Your task to perform on an android device: add a contact Image 0: 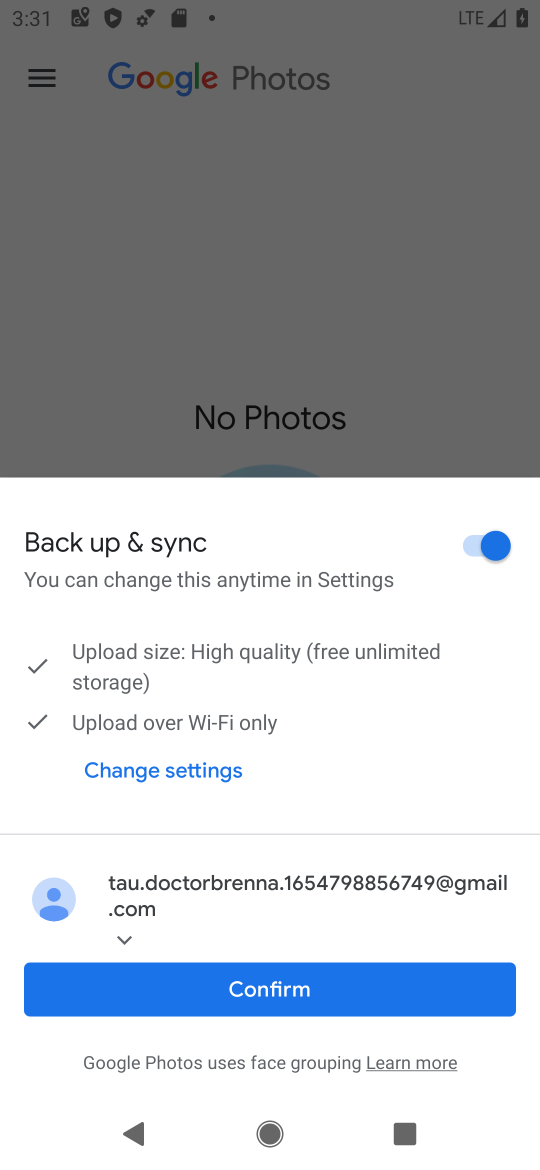
Step 0: press home button
Your task to perform on an android device: add a contact Image 1: 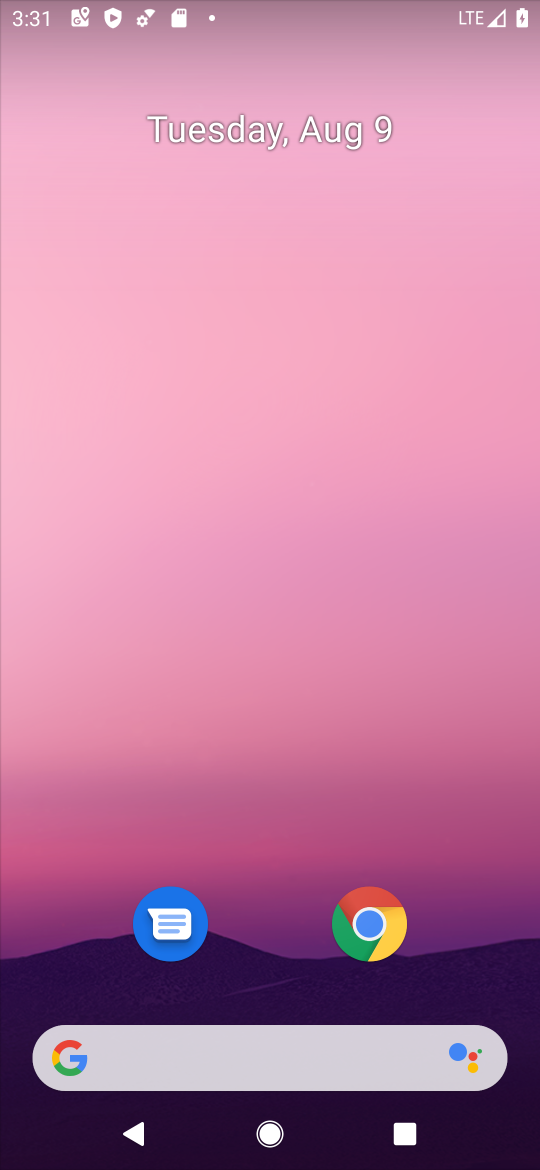
Step 1: drag from (240, 700) to (323, 207)
Your task to perform on an android device: add a contact Image 2: 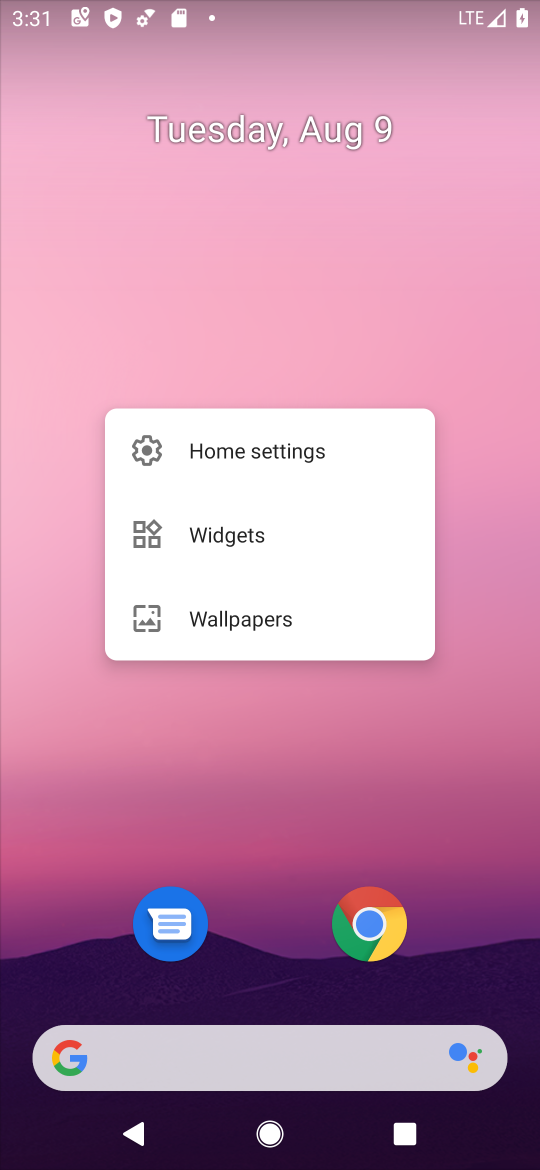
Step 2: drag from (183, 1062) to (335, 109)
Your task to perform on an android device: add a contact Image 3: 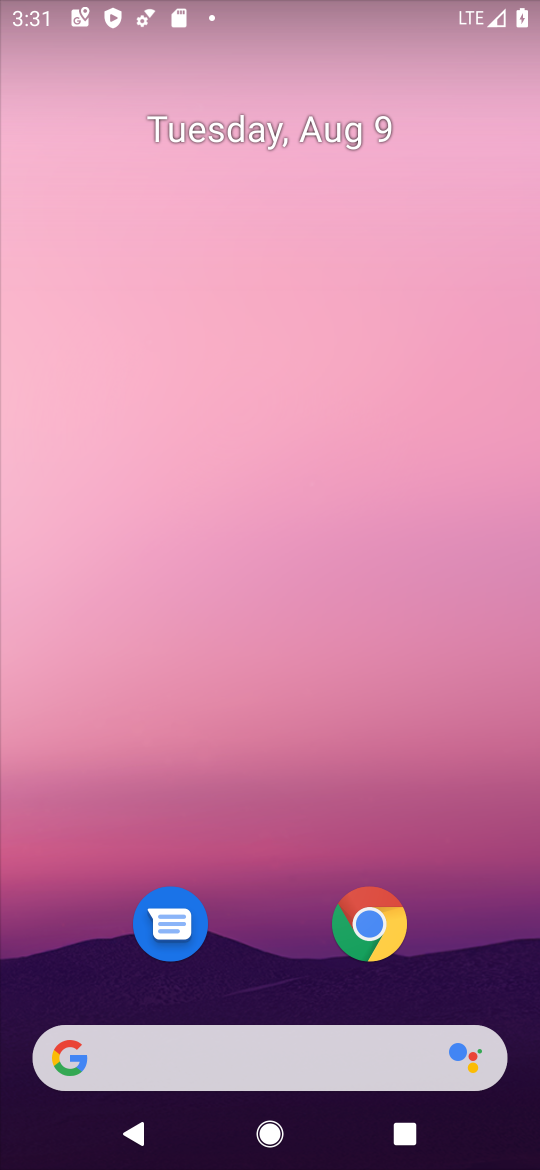
Step 3: drag from (229, 1017) to (349, 299)
Your task to perform on an android device: add a contact Image 4: 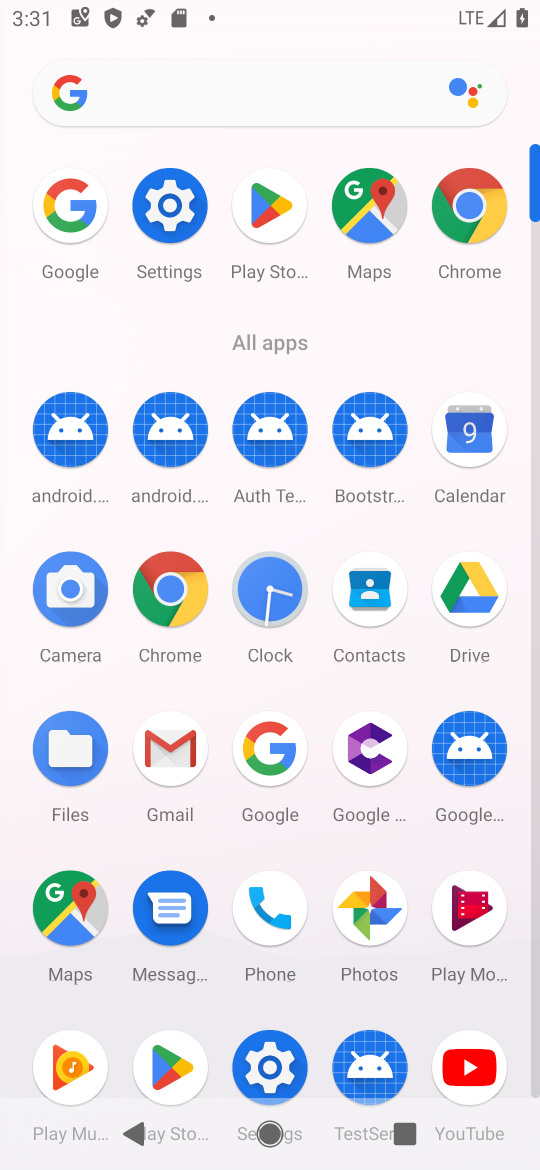
Step 4: click (373, 586)
Your task to perform on an android device: add a contact Image 5: 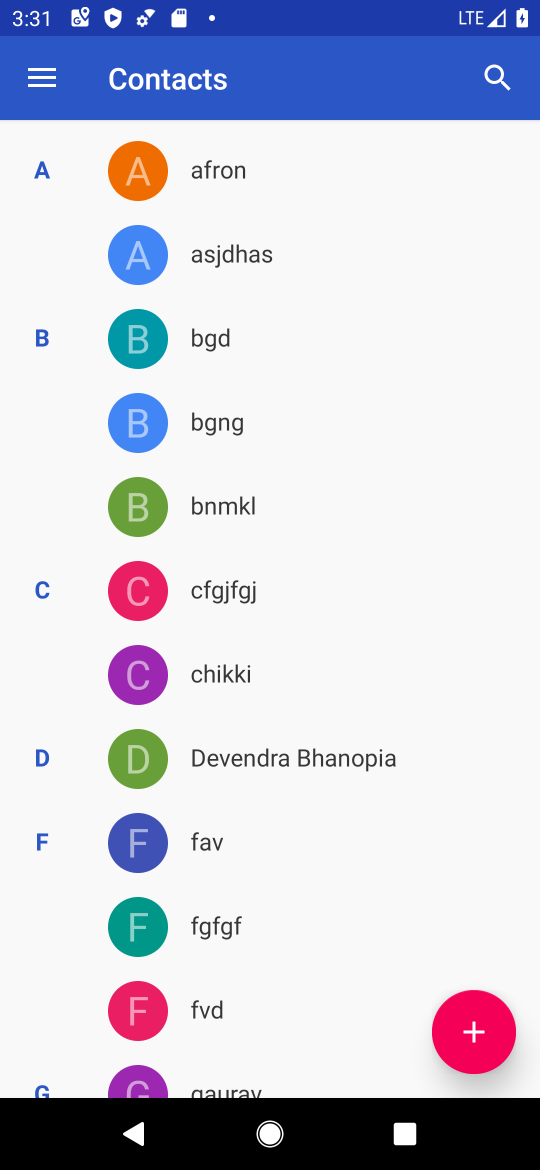
Step 5: click (479, 1032)
Your task to perform on an android device: add a contact Image 6: 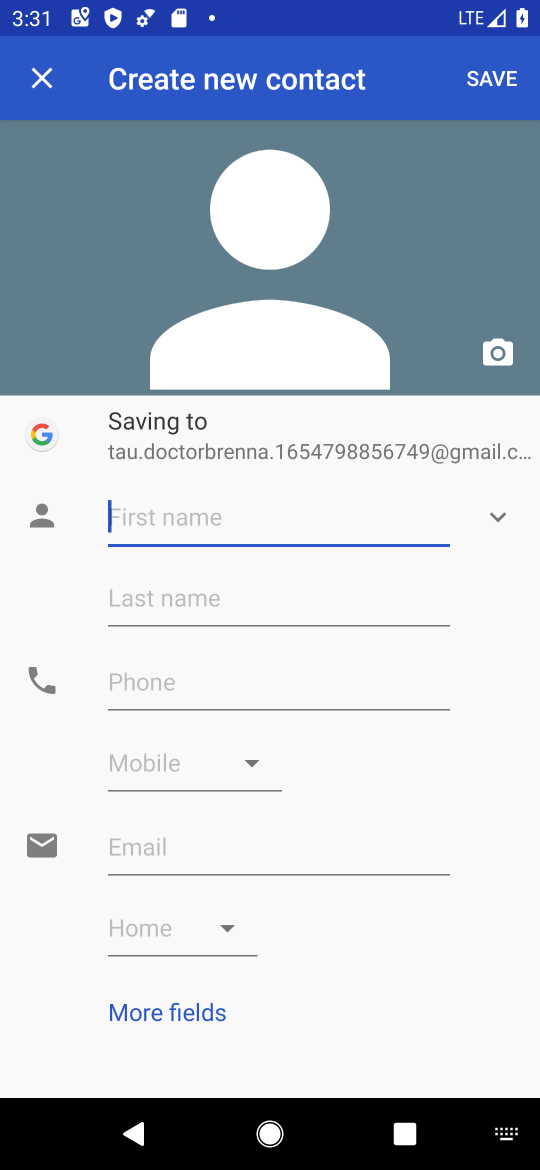
Step 6: click (284, 516)
Your task to perform on an android device: add a contact Image 7: 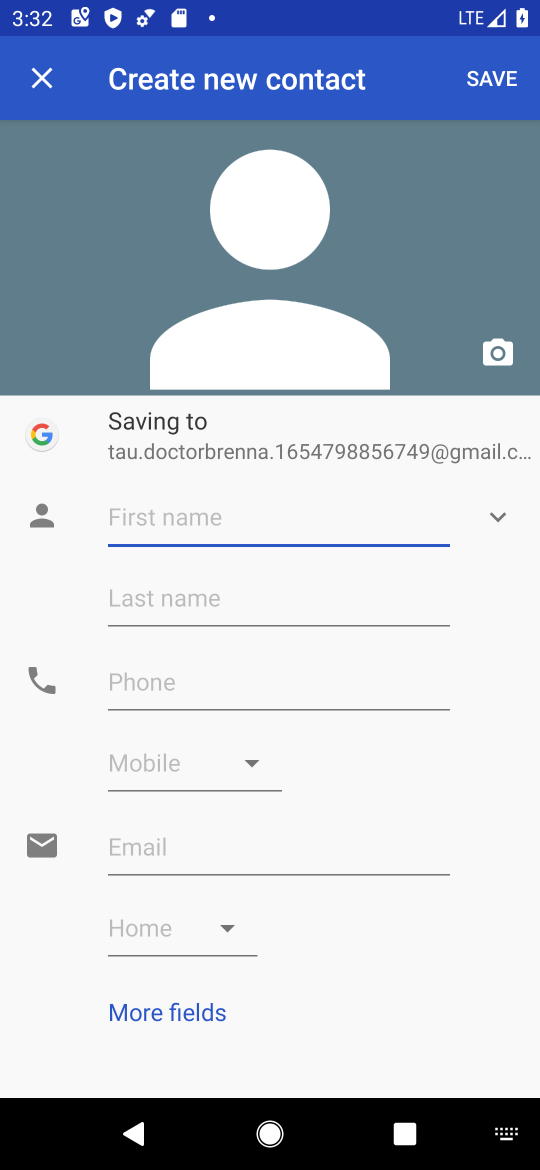
Step 7: type "Gajanand"
Your task to perform on an android device: add a contact Image 8: 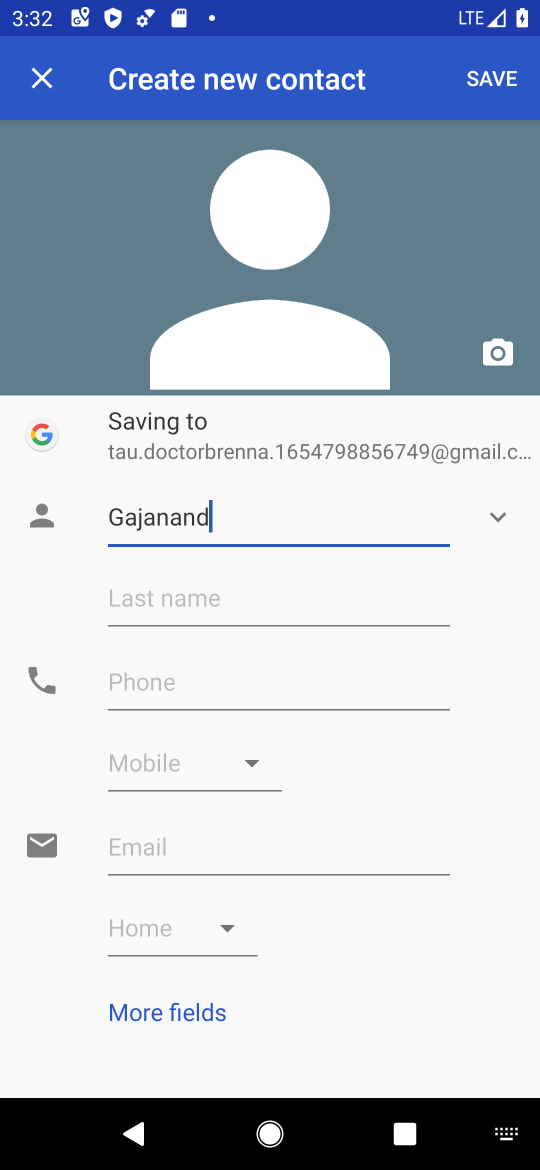
Step 8: click (247, 595)
Your task to perform on an android device: add a contact Image 9: 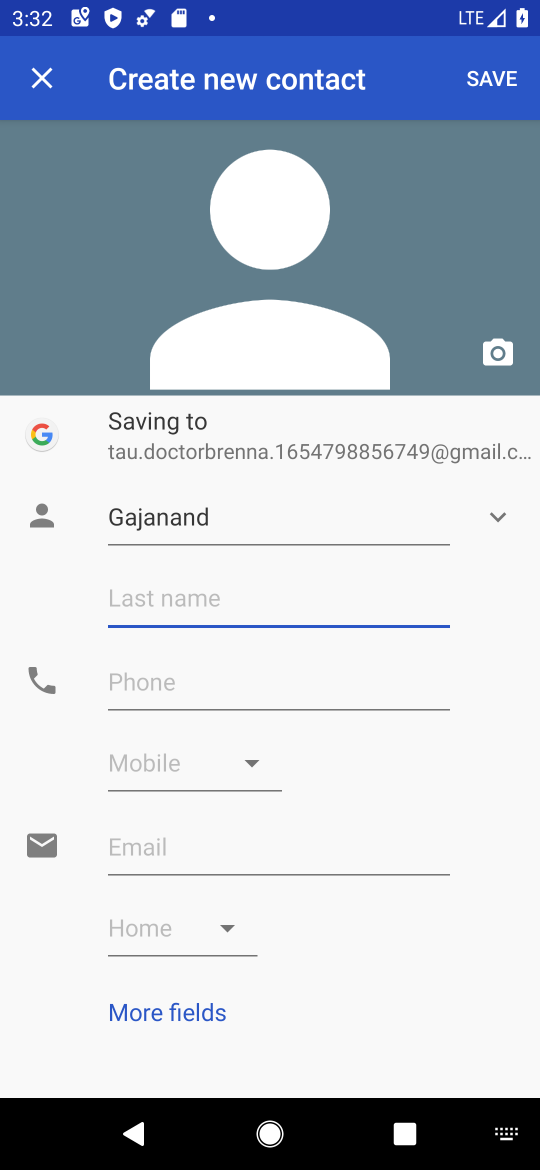
Step 9: type "Arya"
Your task to perform on an android device: add a contact Image 10: 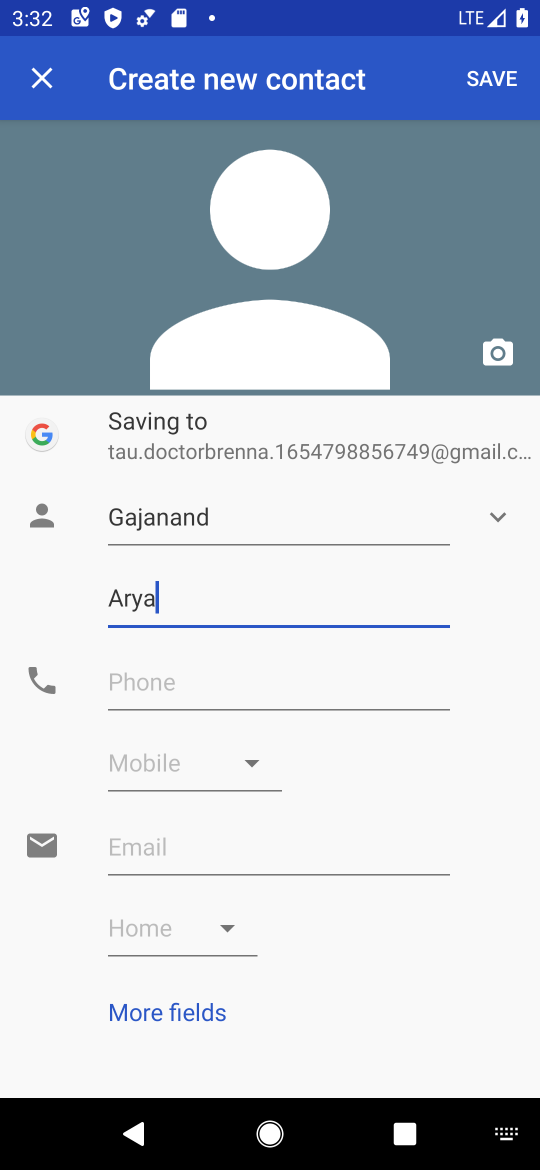
Step 10: click (246, 696)
Your task to perform on an android device: add a contact Image 11: 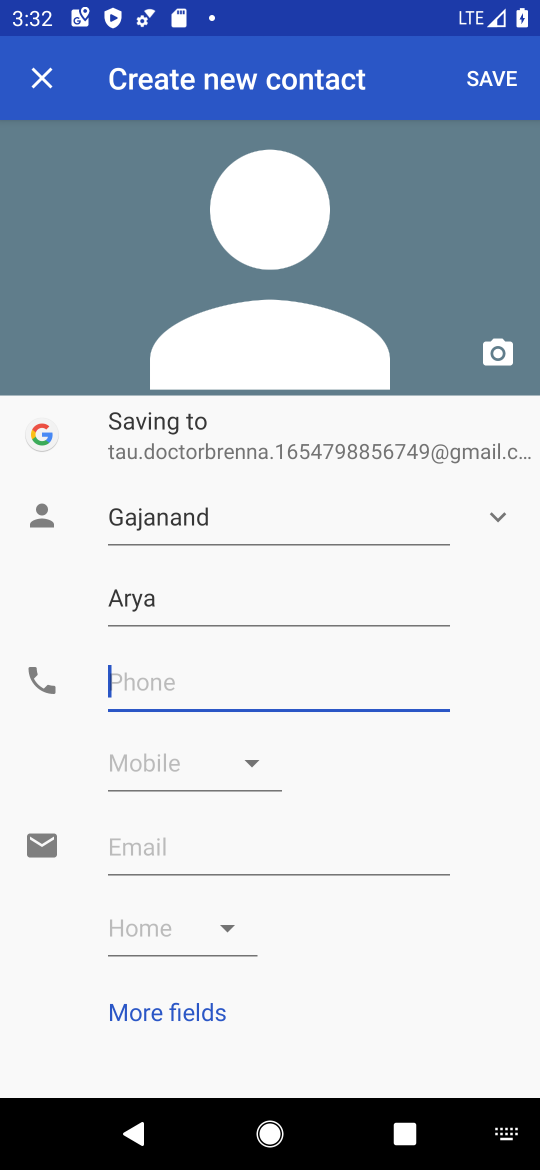
Step 11: type "0987654321"
Your task to perform on an android device: add a contact Image 12: 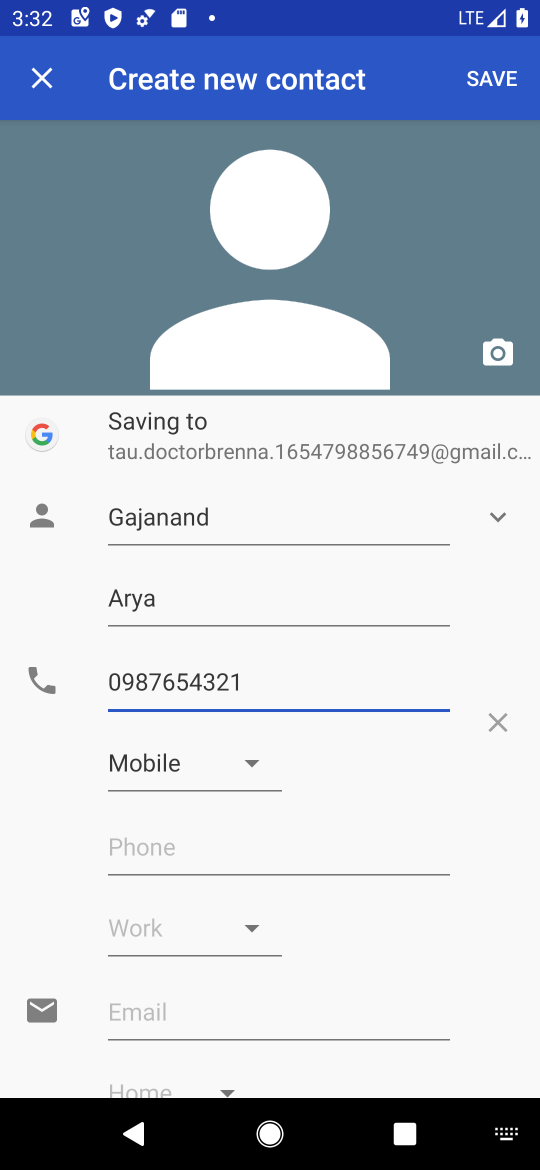
Step 12: click (520, 81)
Your task to perform on an android device: add a contact Image 13: 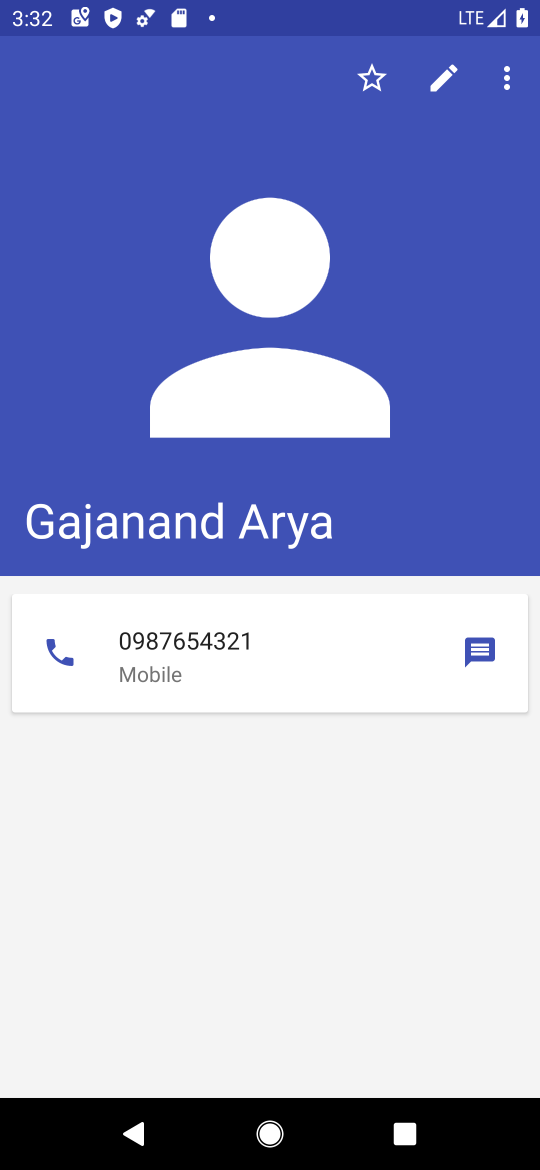
Step 13: task complete